Your task to perform on an android device: What's on my calendar tomorrow? Image 0: 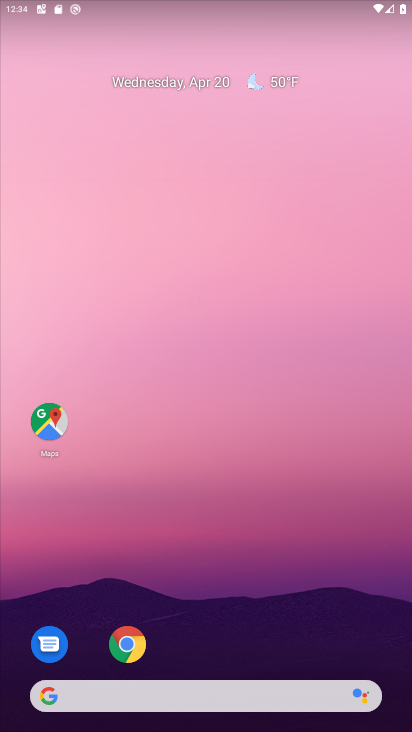
Step 0: drag from (236, 423) to (215, 109)
Your task to perform on an android device: What's on my calendar tomorrow? Image 1: 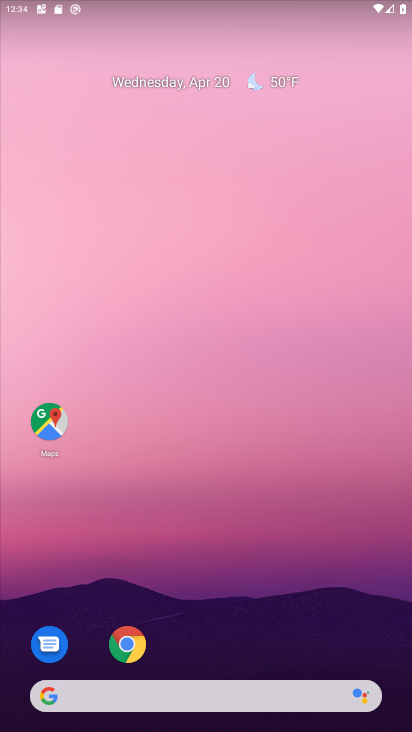
Step 1: drag from (212, 582) to (255, 14)
Your task to perform on an android device: What's on my calendar tomorrow? Image 2: 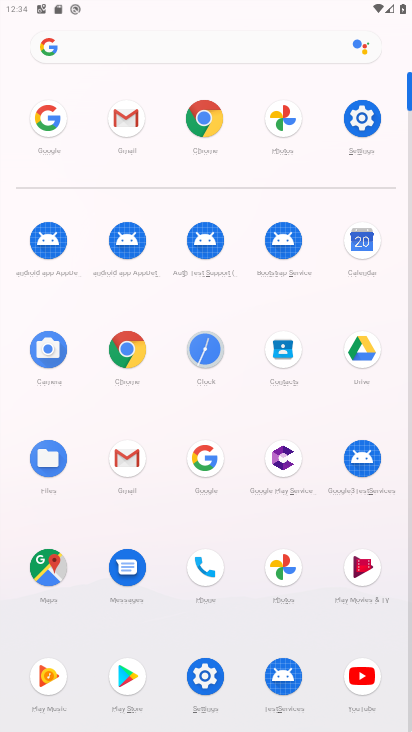
Step 2: click (358, 239)
Your task to perform on an android device: What's on my calendar tomorrow? Image 3: 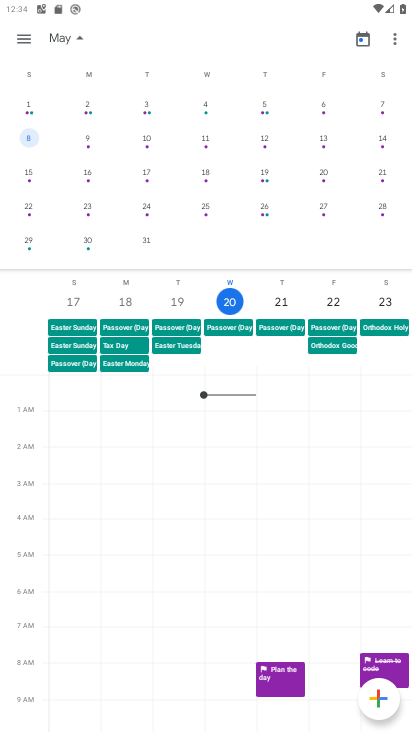
Step 3: click (23, 36)
Your task to perform on an android device: What's on my calendar tomorrow? Image 4: 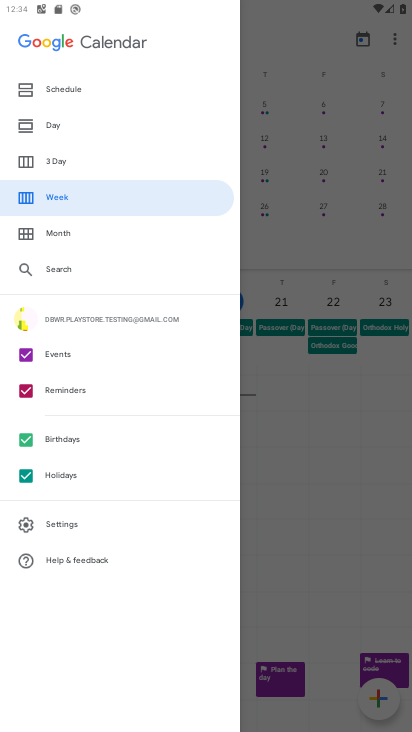
Step 4: click (74, 119)
Your task to perform on an android device: What's on my calendar tomorrow? Image 5: 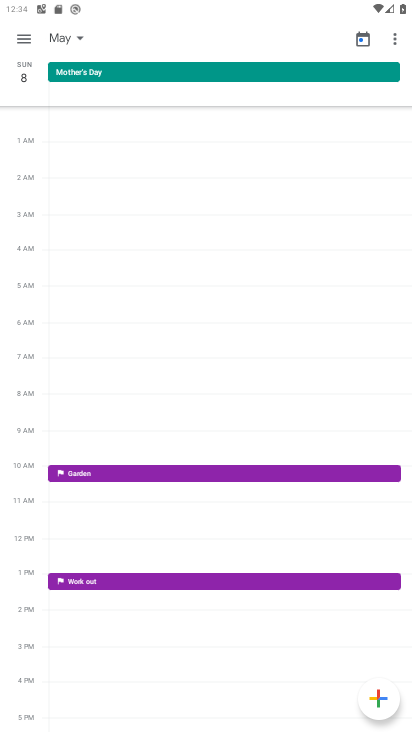
Step 5: click (77, 37)
Your task to perform on an android device: What's on my calendar tomorrow? Image 6: 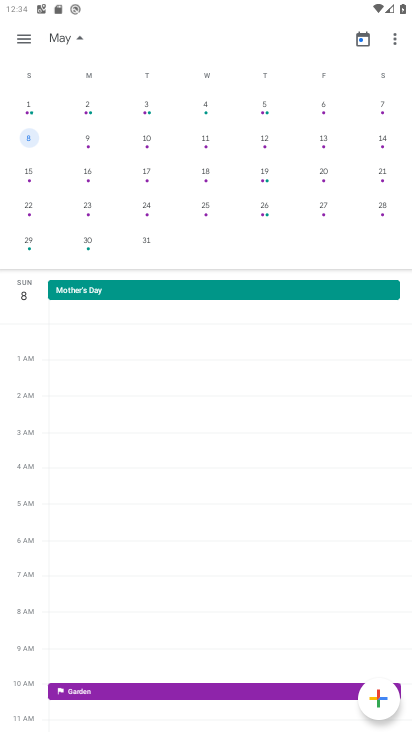
Step 6: drag from (63, 136) to (398, 197)
Your task to perform on an android device: What's on my calendar tomorrow? Image 7: 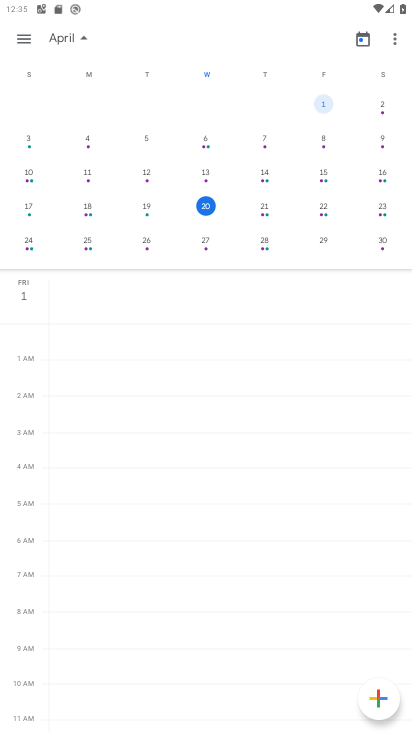
Step 7: click (262, 205)
Your task to perform on an android device: What's on my calendar tomorrow? Image 8: 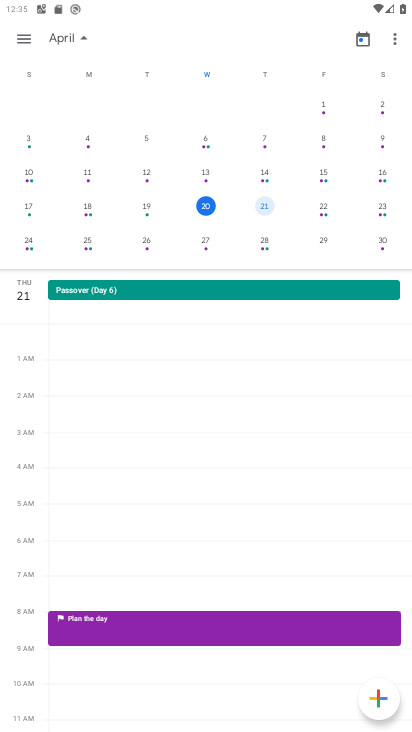
Step 8: task complete